Your task to perform on an android device: set an alarm Image 0: 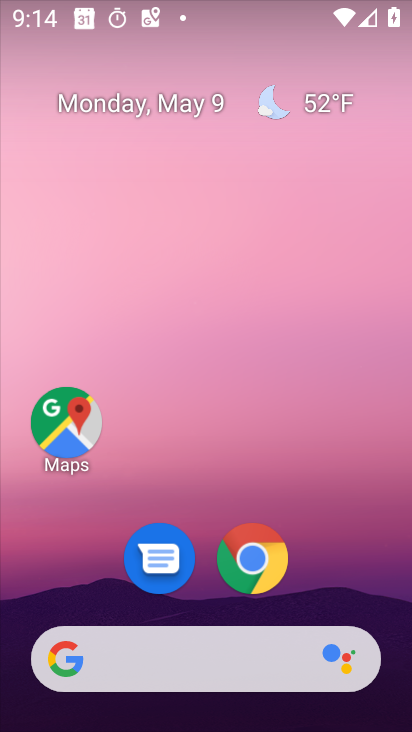
Step 0: drag from (232, 513) to (329, 17)
Your task to perform on an android device: set an alarm Image 1: 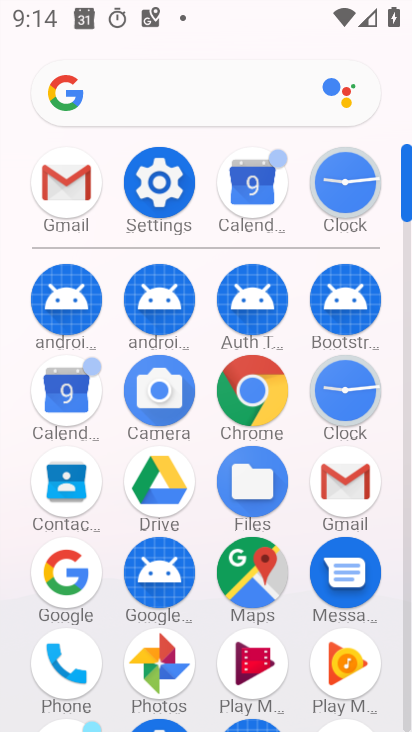
Step 1: click (351, 386)
Your task to perform on an android device: set an alarm Image 2: 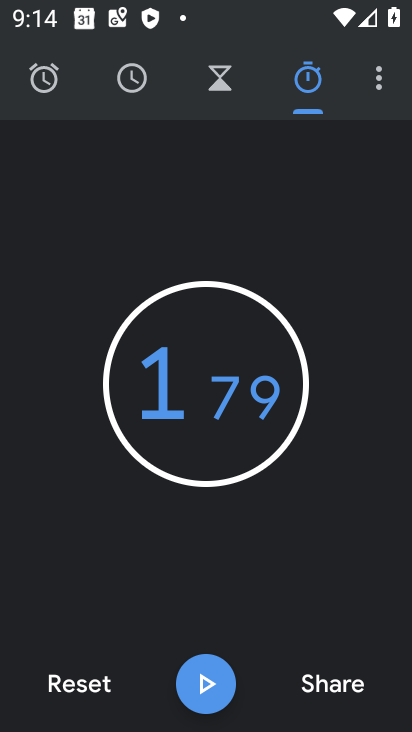
Step 2: click (52, 46)
Your task to perform on an android device: set an alarm Image 3: 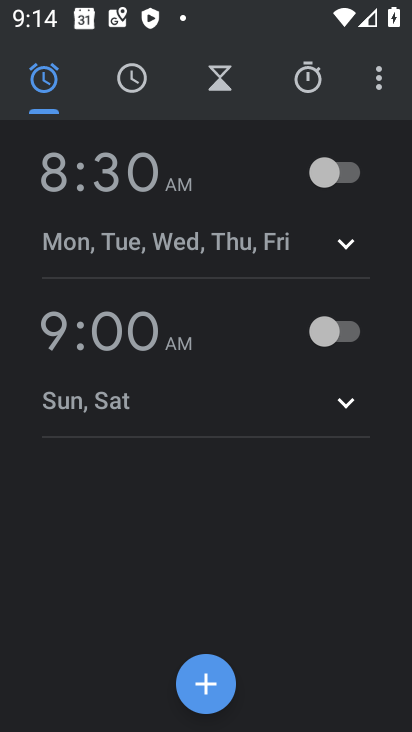
Step 3: click (335, 167)
Your task to perform on an android device: set an alarm Image 4: 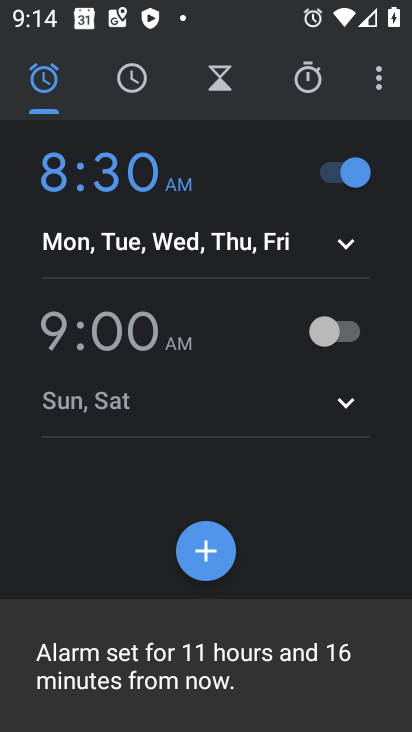
Step 4: task complete